Your task to perform on an android device: open app "Messenger Lite" Image 0: 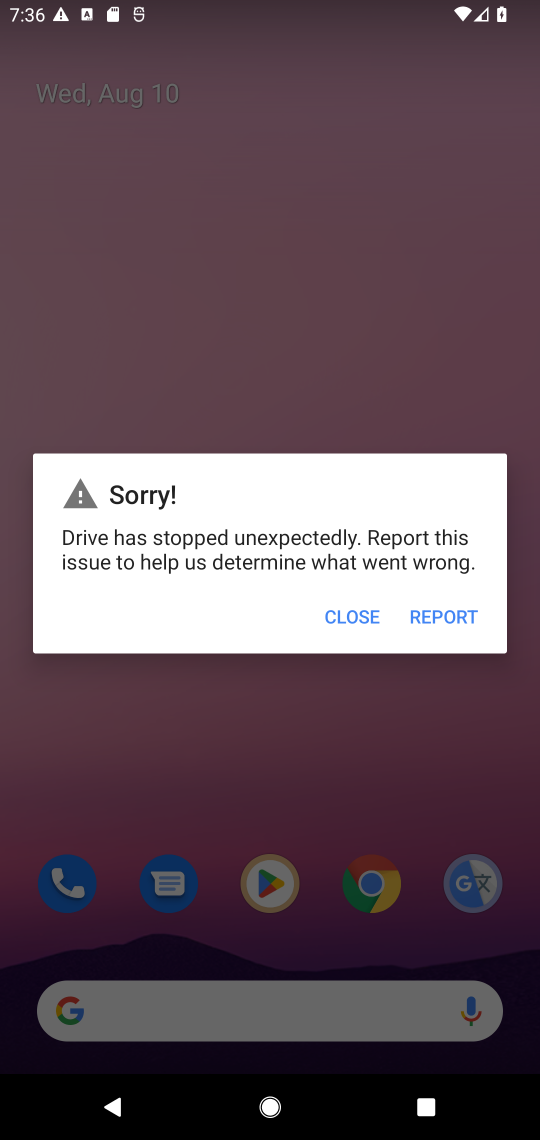
Step 0: press home button
Your task to perform on an android device: open app "Messenger Lite" Image 1: 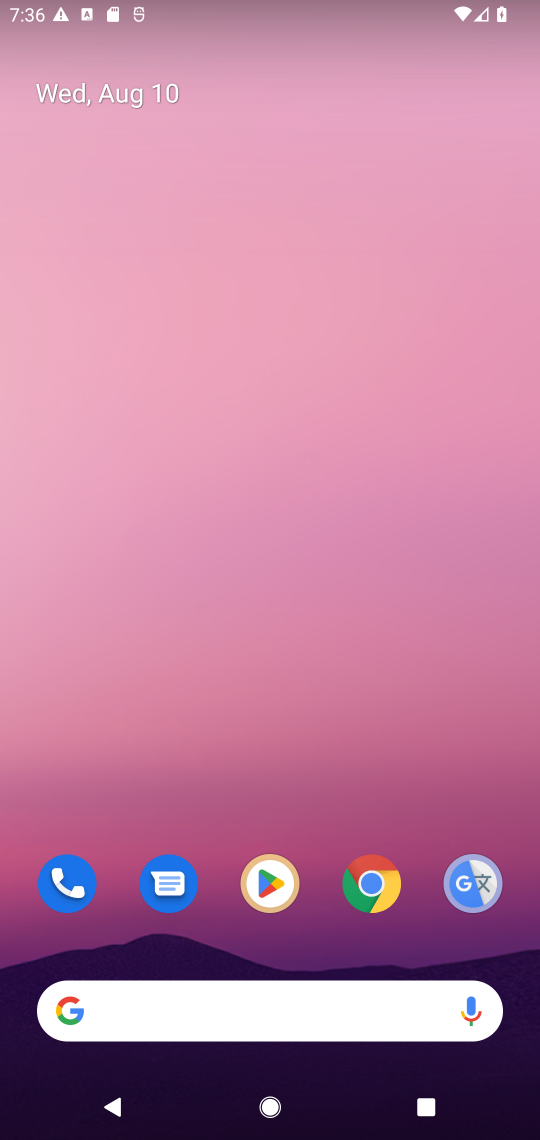
Step 1: drag from (322, 877) to (312, 134)
Your task to perform on an android device: open app "Messenger Lite" Image 2: 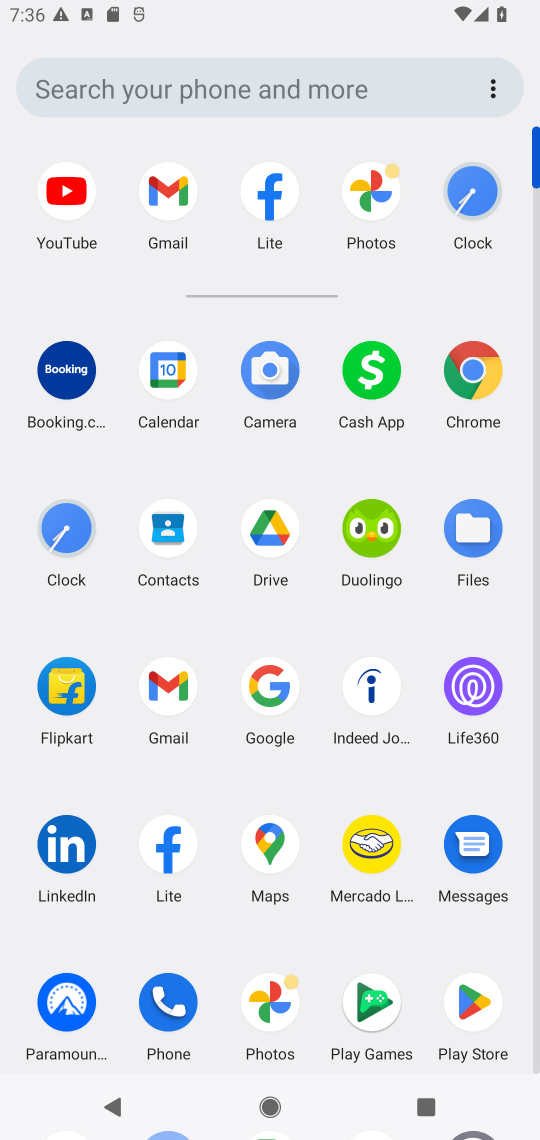
Step 2: click (475, 1001)
Your task to perform on an android device: open app "Messenger Lite" Image 3: 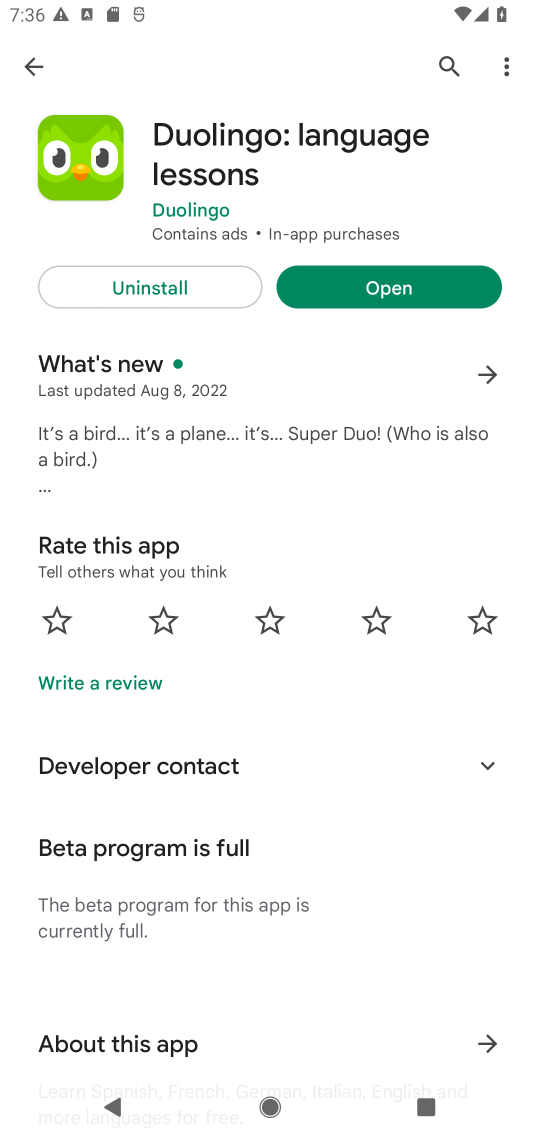
Step 3: click (450, 100)
Your task to perform on an android device: open app "Messenger Lite" Image 4: 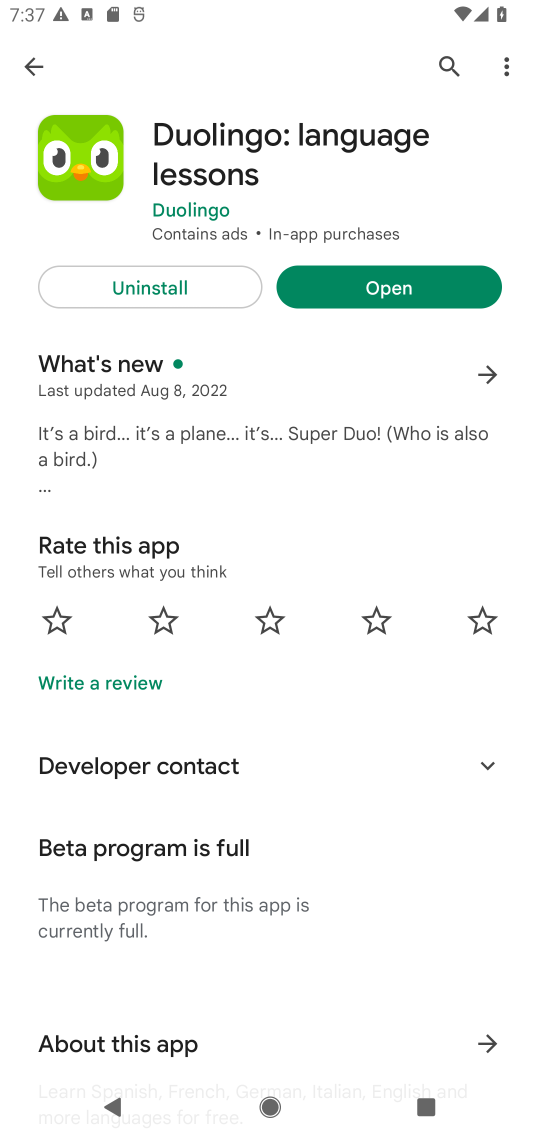
Step 4: click (449, 57)
Your task to perform on an android device: open app "Messenger Lite" Image 5: 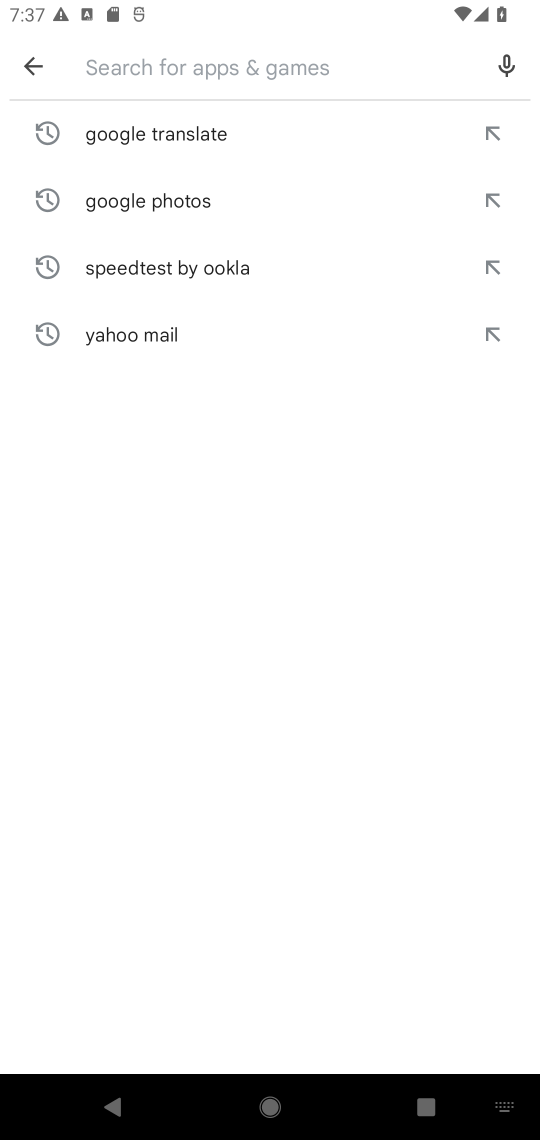
Step 5: type "Messenger Lite"
Your task to perform on an android device: open app "Messenger Lite" Image 6: 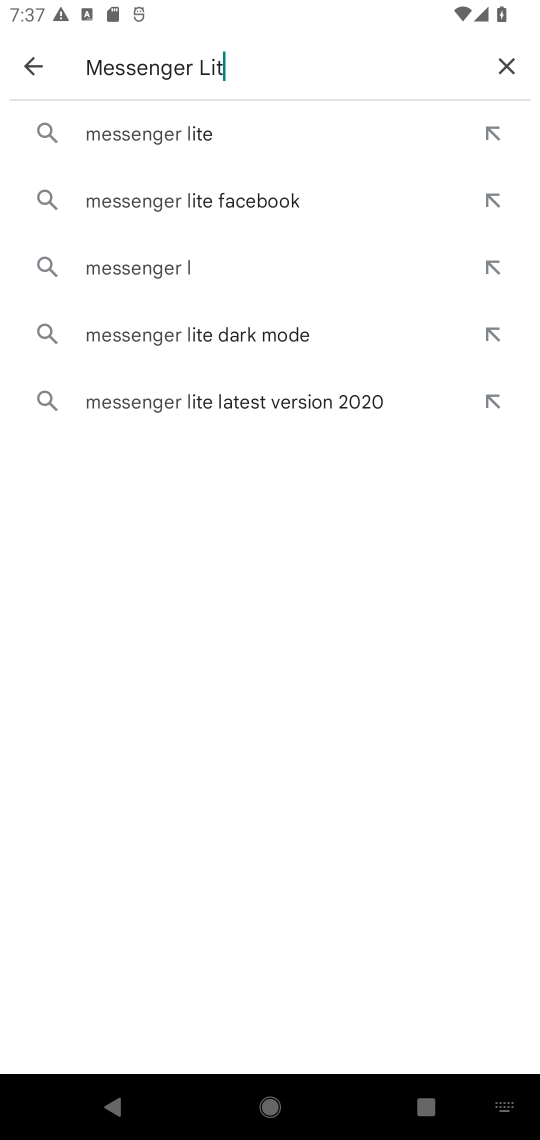
Step 6: type ""
Your task to perform on an android device: open app "Messenger Lite" Image 7: 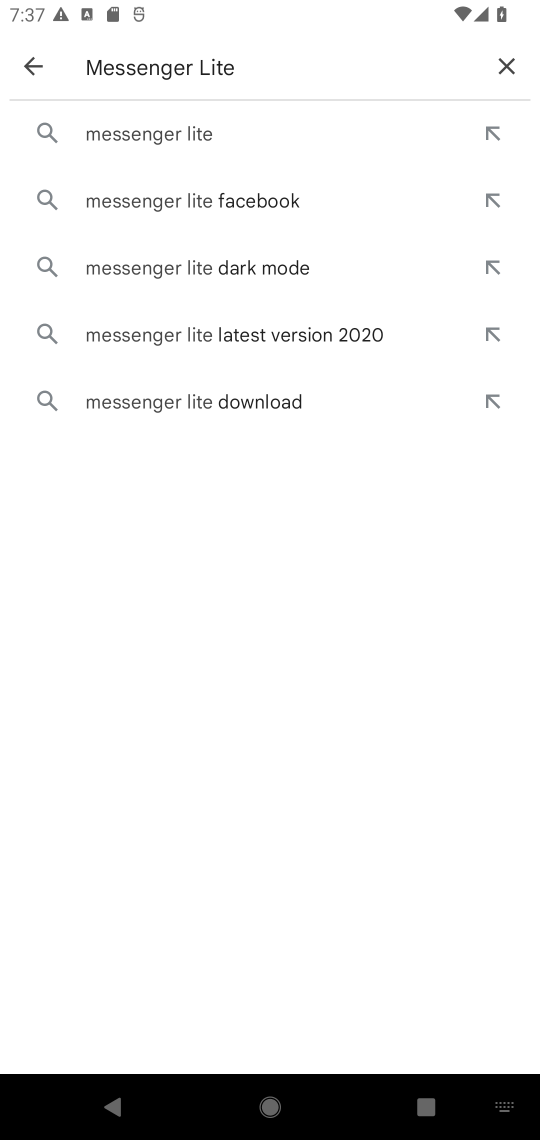
Step 7: click (161, 141)
Your task to perform on an android device: open app "Messenger Lite" Image 8: 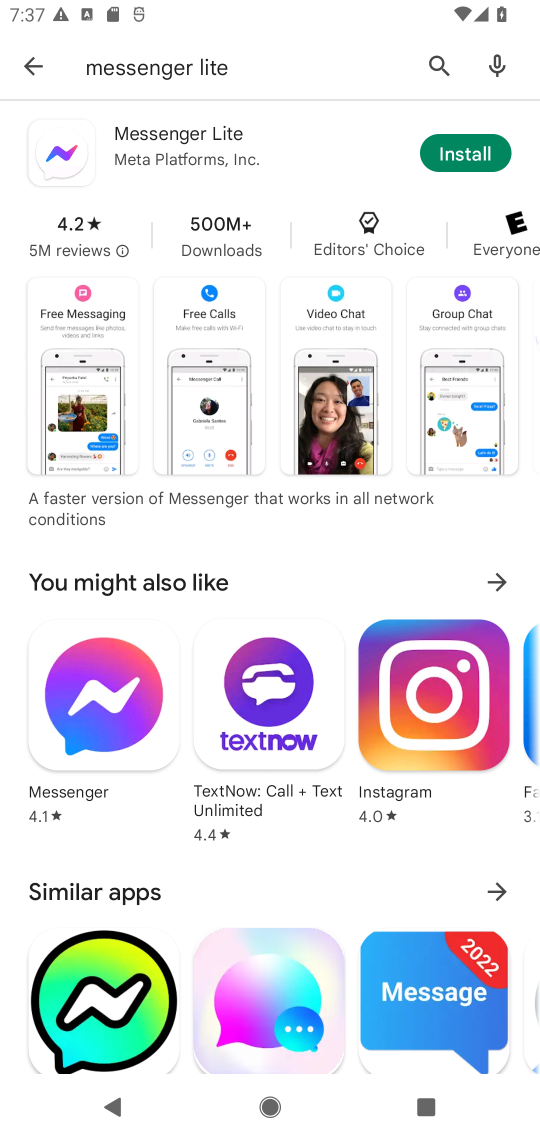
Step 8: task complete